Your task to perform on an android device: When is my next appointment? Image 0: 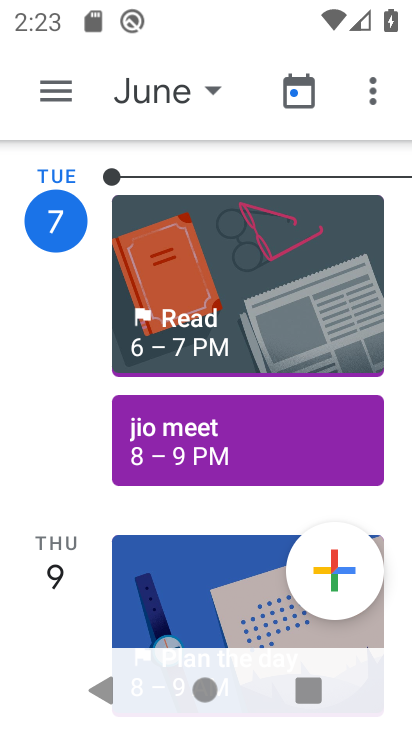
Step 0: drag from (283, 405) to (397, 143)
Your task to perform on an android device: When is my next appointment? Image 1: 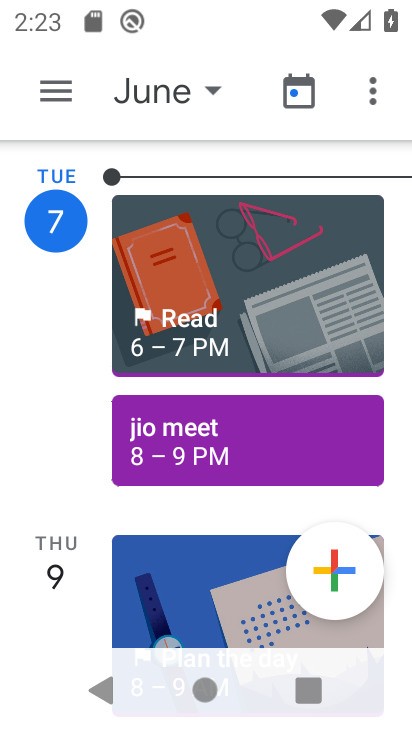
Step 1: task complete